Your task to perform on an android device: find which apps use the phone's location Image 0: 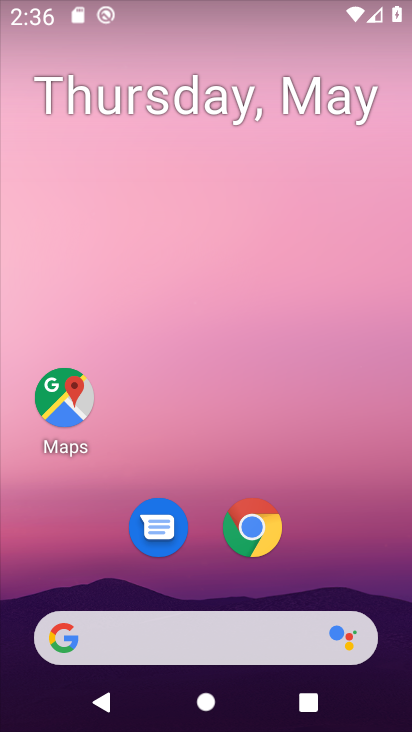
Step 0: drag from (374, 587) to (359, 23)
Your task to perform on an android device: find which apps use the phone's location Image 1: 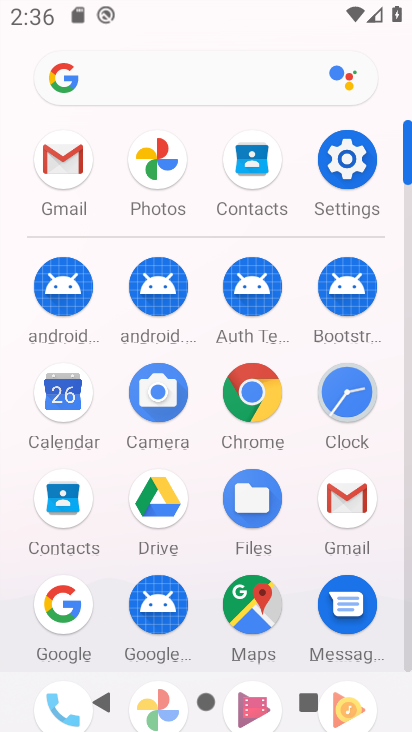
Step 1: click (409, 658)
Your task to perform on an android device: find which apps use the phone's location Image 2: 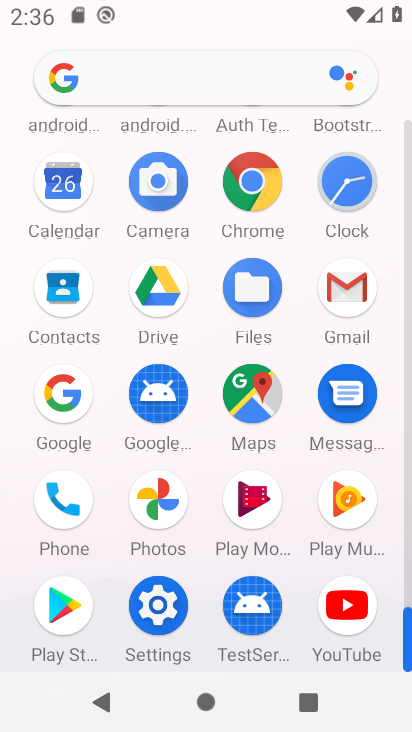
Step 2: click (63, 551)
Your task to perform on an android device: find which apps use the phone's location Image 3: 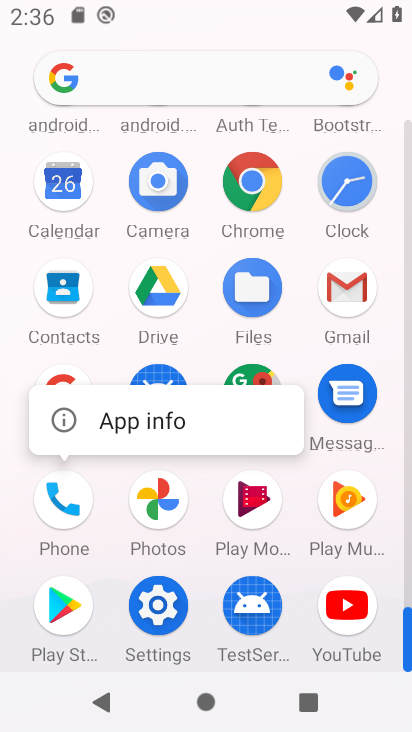
Step 3: click (150, 419)
Your task to perform on an android device: find which apps use the phone's location Image 4: 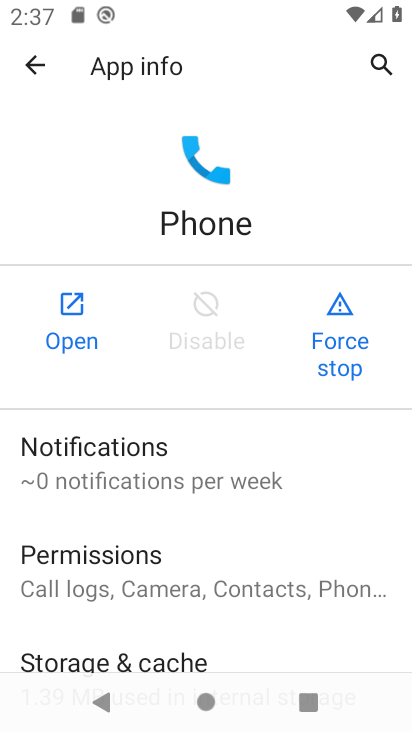
Step 4: click (190, 599)
Your task to perform on an android device: find which apps use the phone's location Image 5: 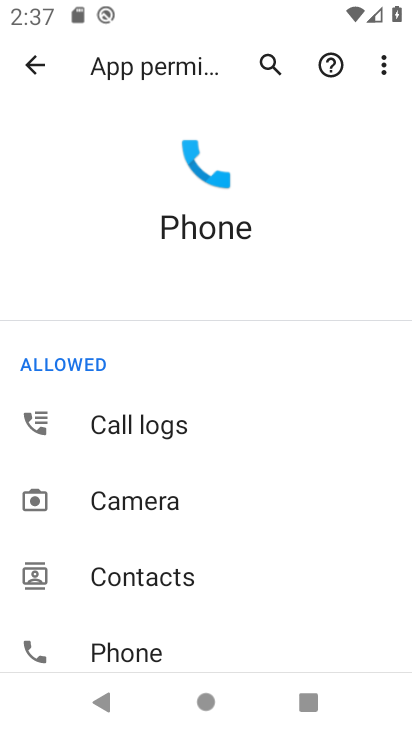
Step 5: drag from (158, 598) to (168, 118)
Your task to perform on an android device: find which apps use the phone's location Image 6: 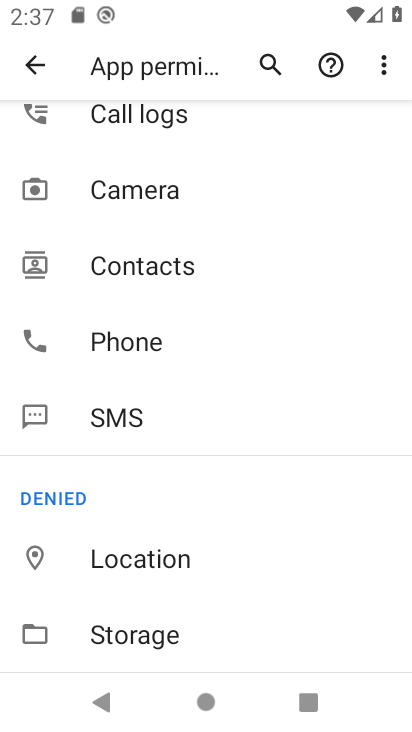
Step 6: click (177, 571)
Your task to perform on an android device: find which apps use the phone's location Image 7: 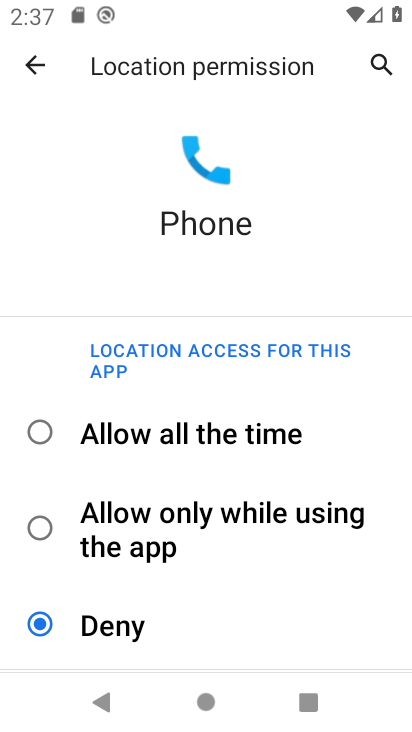
Step 7: drag from (227, 631) to (380, 168)
Your task to perform on an android device: find which apps use the phone's location Image 8: 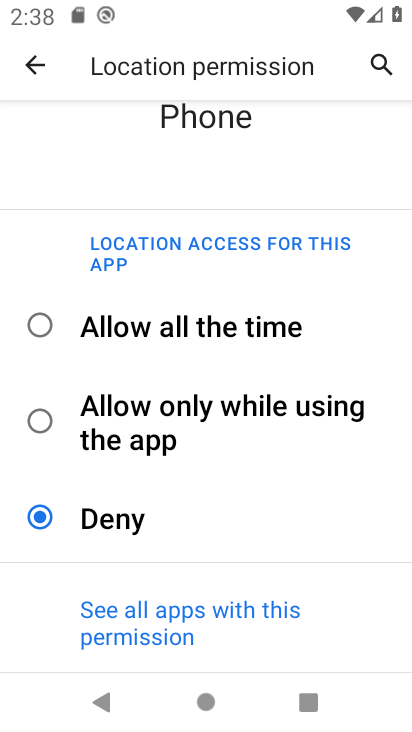
Step 8: click (136, 645)
Your task to perform on an android device: find which apps use the phone's location Image 9: 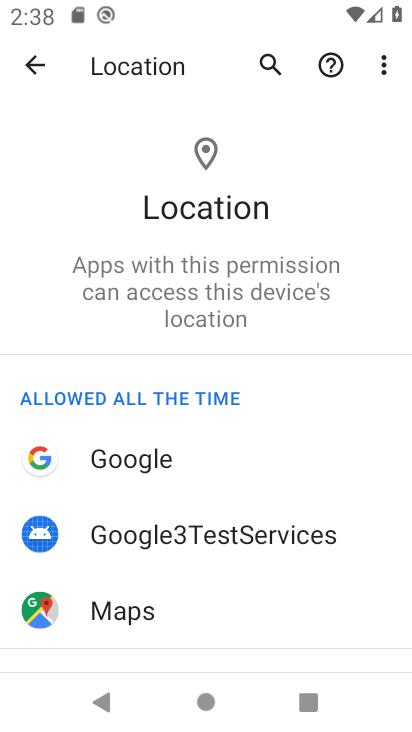
Step 9: task complete